Your task to perform on an android device: turn on bluetooth scan Image 0: 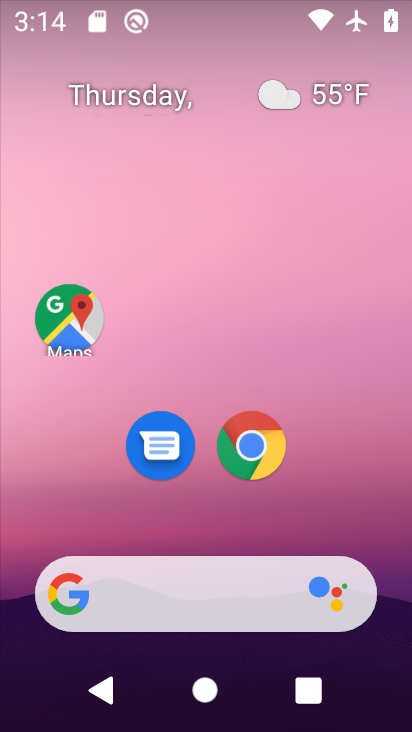
Step 0: drag from (300, 364) to (288, 187)
Your task to perform on an android device: turn on bluetooth scan Image 1: 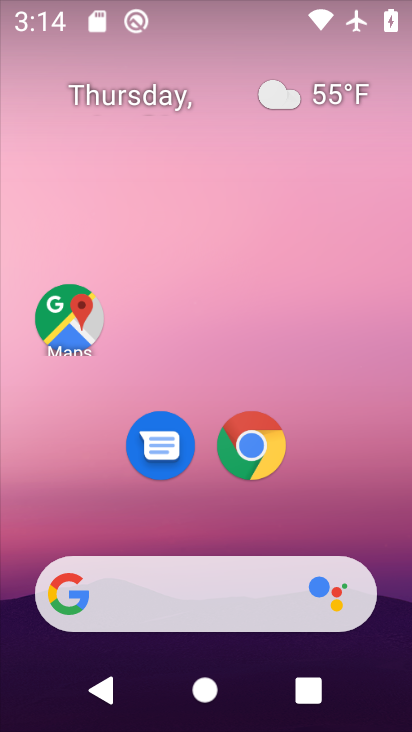
Step 1: drag from (357, 450) to (353, 186)
Your task to perform on an android device: turn on bluetooth scan Image 2: 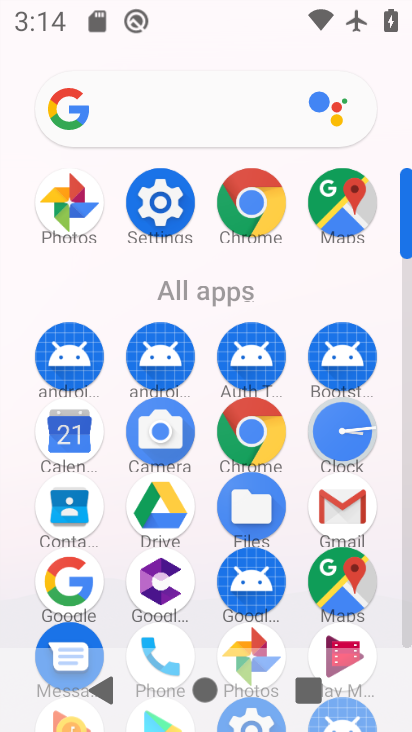
Step 2: click (166, 206)
Your task to perform on an android device: turn on bluetooth scan Image 3: 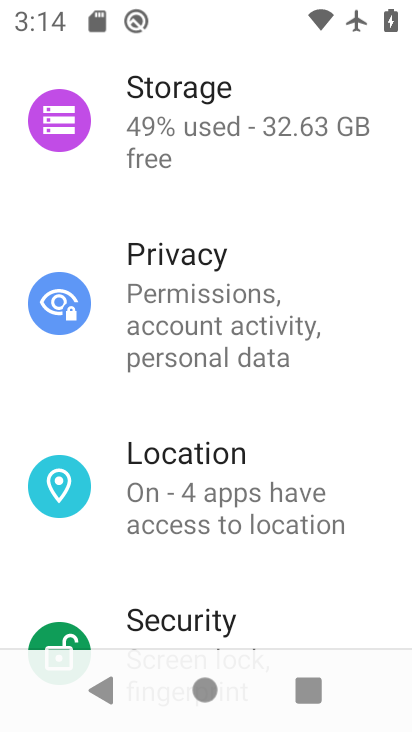
Step 3: click (238, 458)
Your task to perform on an android device: turn on bluetooth scan Image 4: 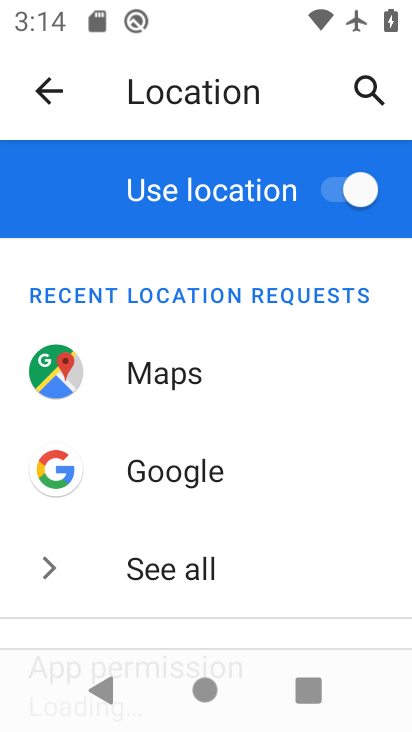
Step 4: drag from (246, 549) to (267, 271)
Your task to perform on an android device: turn on bluetooth scan Image 5: 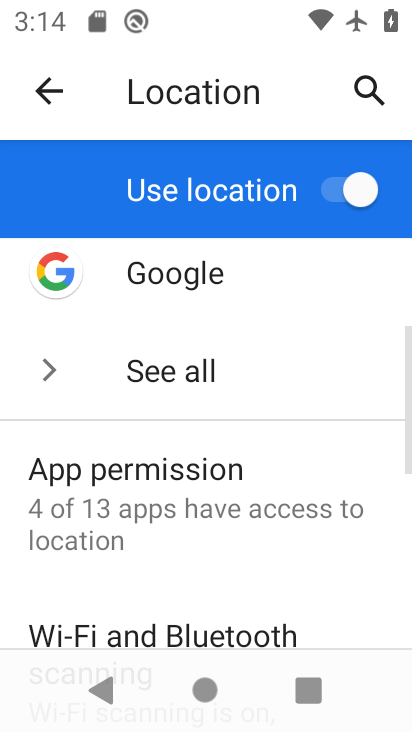
Step 5: drag from (268, 587) to (288, 355)
Your task to perform on an android device: turn on bluetooth scan Image 6: 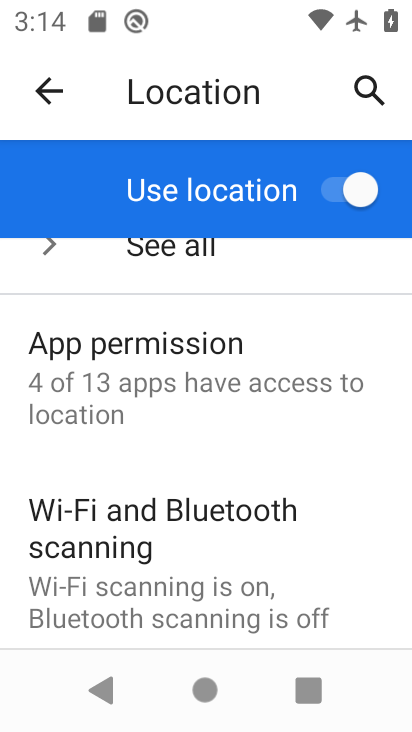
Step 6: click (214, 532)
Your task to perform on an android device: turn on bluetooth scan Image 7: 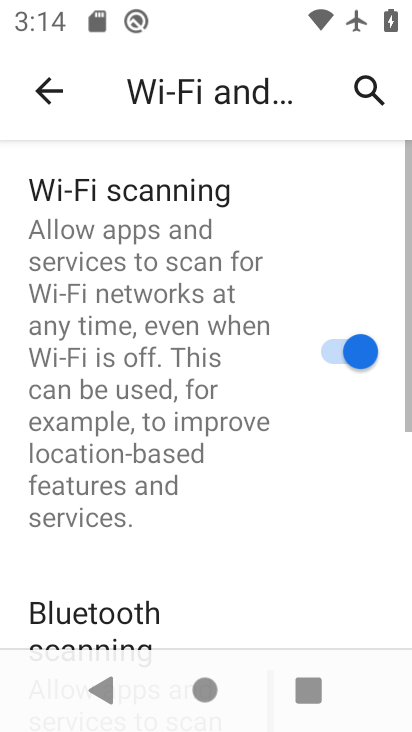
Step 7: drag from (261, 564) to (221, 263)
Your task to perform on an android device: turn on bluetooth scan Image 8: 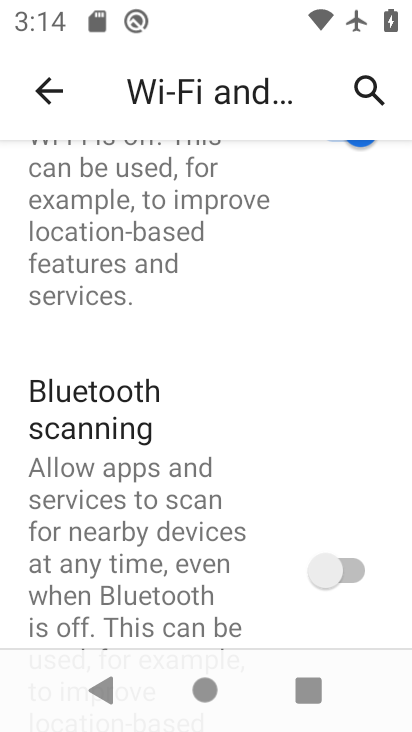
Step 8: click (342, 578)
Your task to perform on an android device: turn on bluetooth scan Image 9: 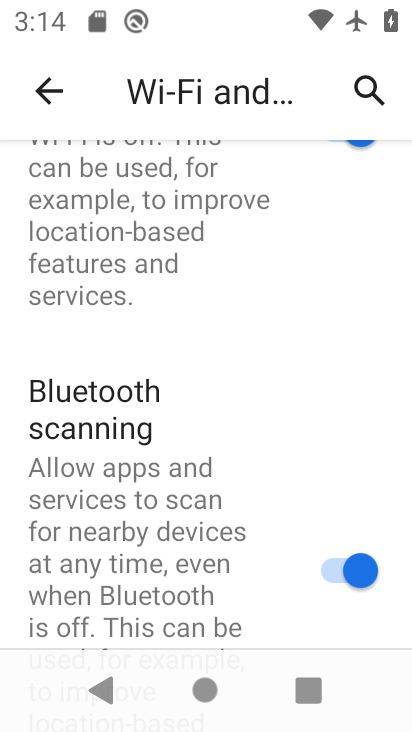
Step 9: task complete